Your task to perform on an android device: turn on priority inbox in the gmail app Image 0: 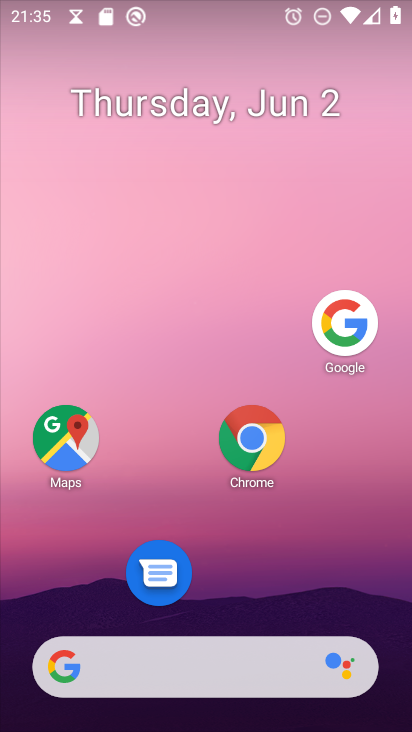
Step 0: press home button
Your task to perform on an android device: turn on priority inbox in the gmail app Image 1: 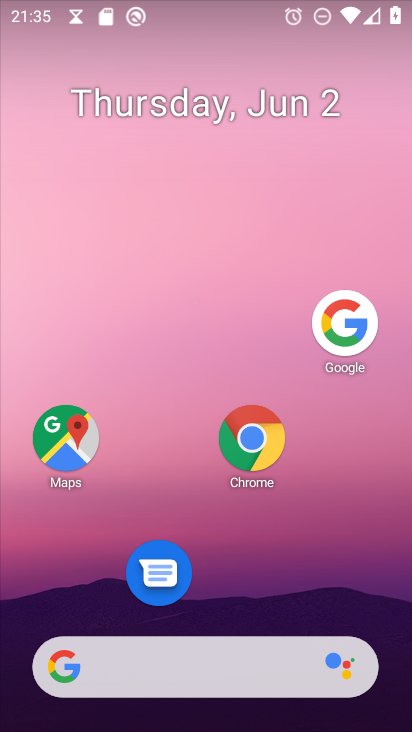
Step 1: drag from (222, 612) to (347, 155)
Your task to perform on an android device: turn on priority inbox in the gmail app Image 2: 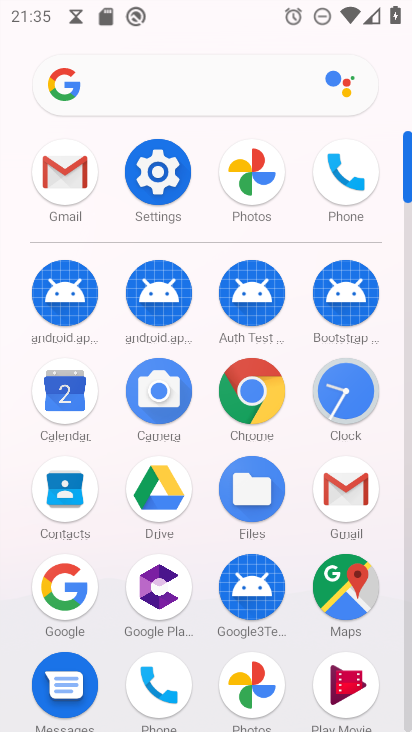
Step 2: click (54, 195)
Your task to perform on an android device: turn on priority inbox in the gmail app Image 3: 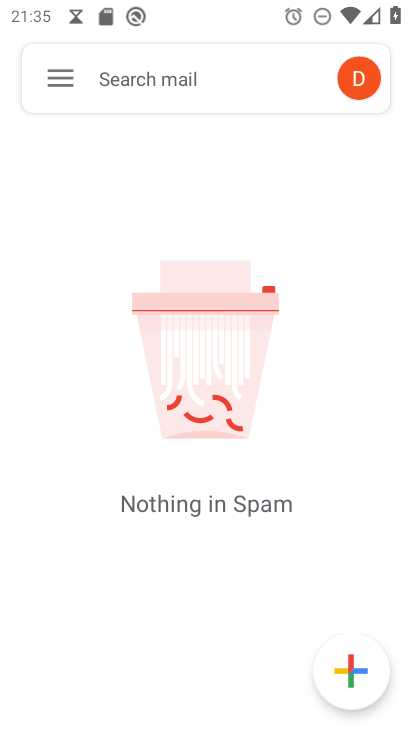
Step 3: click (60, 78)
Your task to perform on an android device: turn on priority inbox in the gmail app Image 4: 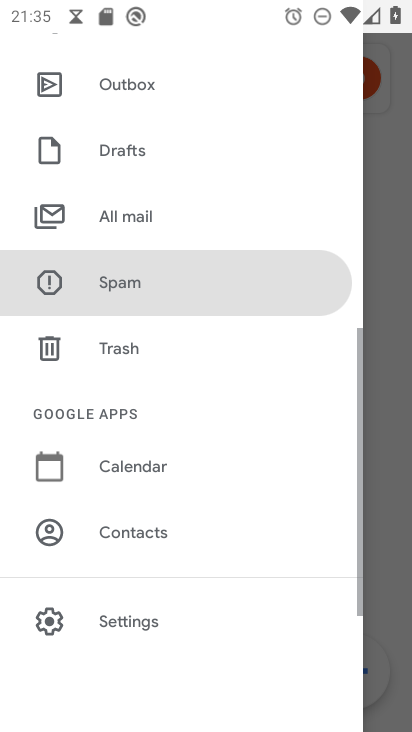
Step 4: click (142, 623)
Your task to perform on an android device: turn on priority inbox in the gmail app Image 5: 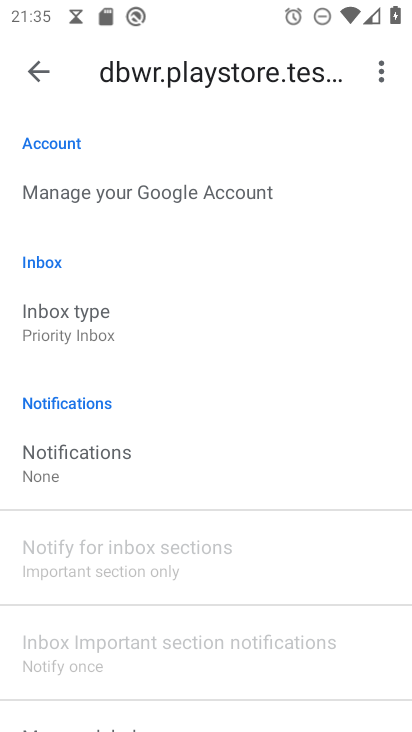
Step 5: click (78, 332)
Your task to perform on an android device: turn on priority inbox in the gmail app Image 6: 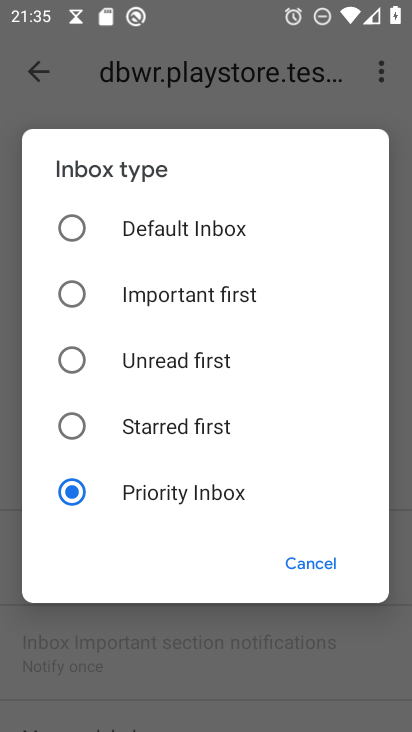
Step 6: task complete